Your task to perform on an android device: toggle translation in the chrome app Image 0: 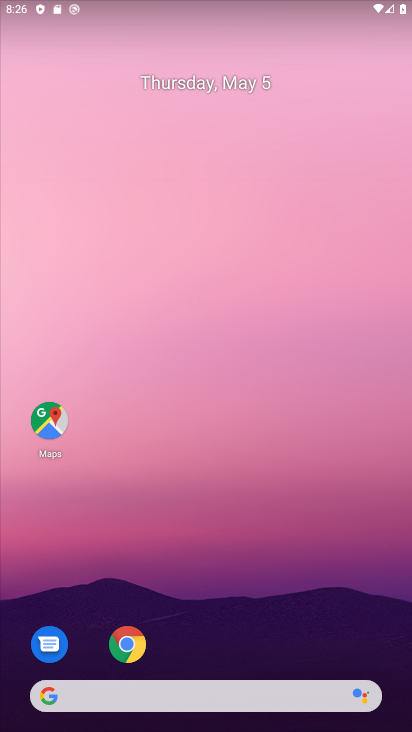
Step 0: drag from (295, 648) to (231, 4)
Your task to perform on an android device: toggle translation in the chrome app Image 1: 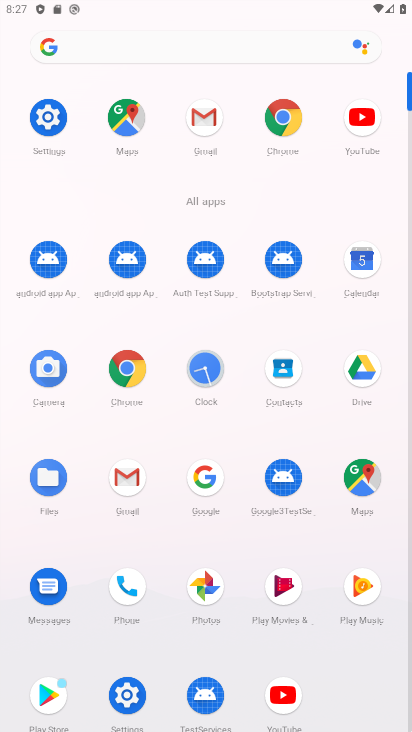
Step 1: click (286, 129)
Your task to perform on an android device: toggle translation in the chrome app Image 2: 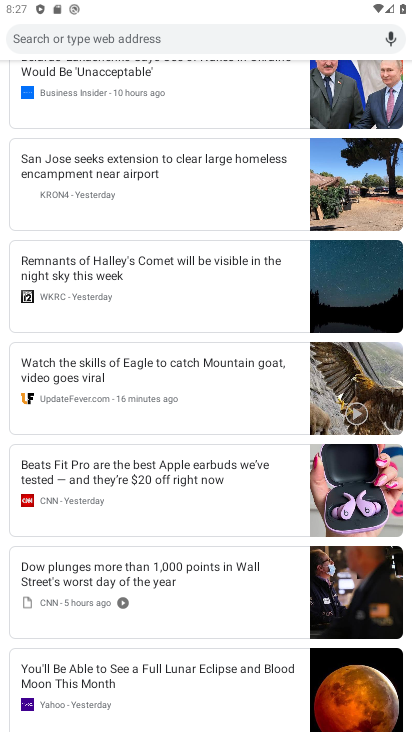
Step 2: drag from (99, 162) to (120, 619)
Your task to perform on an android device: toggle translation in the chrome app Image 3: 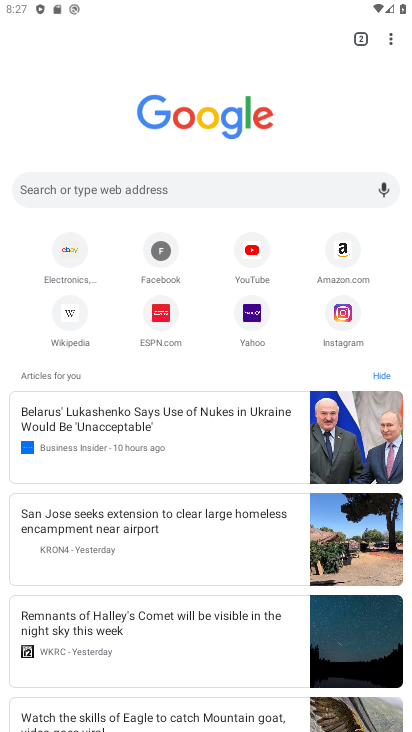
Step 3: drag from (386, 37) to (253, 372)
Your task to perform on an android device: toggle translation in the chrome app Image 4: 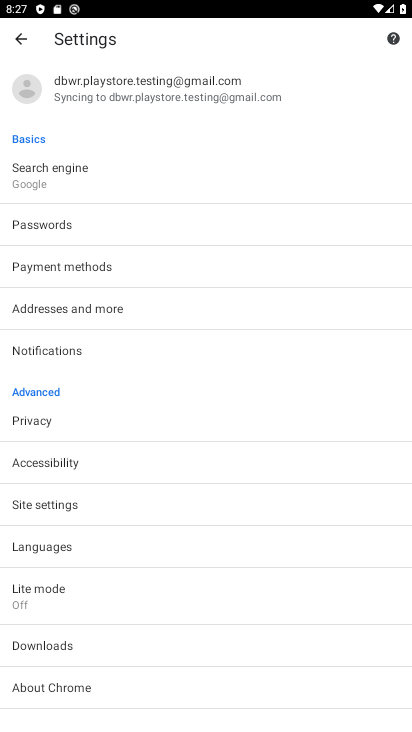
Step 4: drag from (151, 599) to (195, 191)
Your task to perform on an android device: toggle translation in the chrome app Image 5: 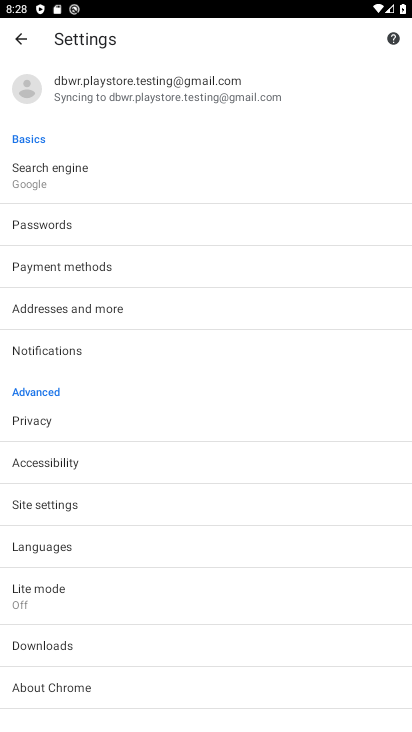
Step 5: drag from (80, 628) to (84, 314)
Your task to perform on an android device: toggle translation in the chrome app Image 6: 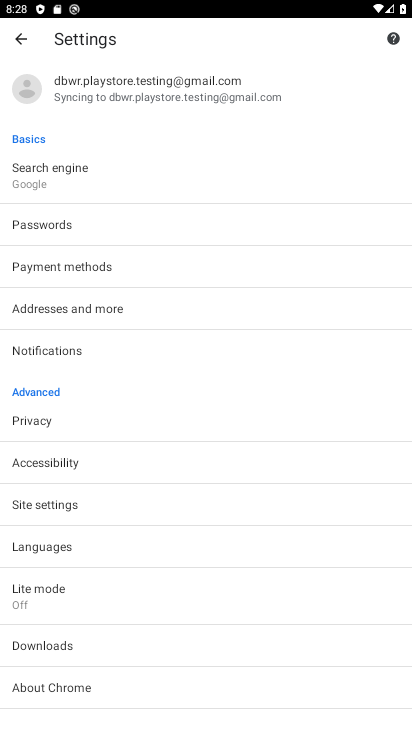
Step 6: click (41, 548)
Your task to perform on an android device: toggle translation in the chrome app Image 7: 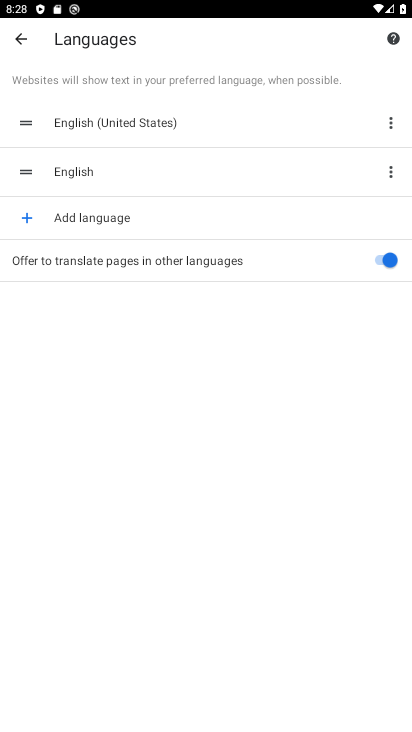
Step 7: click (383, 257)
Your task to perform on an android device: toggle translation in the chrome app Image 8: 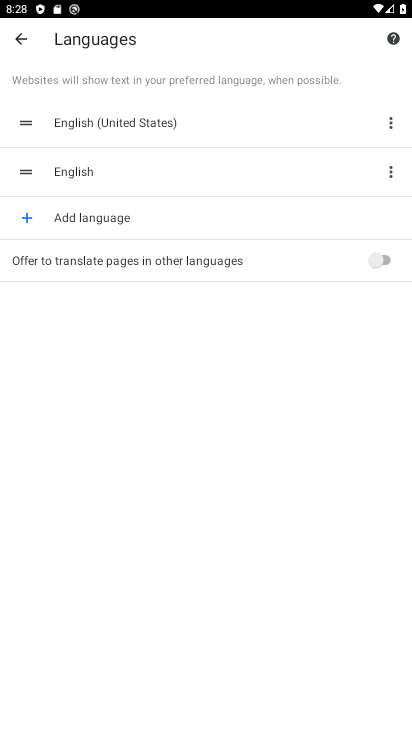
Step 8: task complete